Your task to perform on an android device: open app "Messages" (install if not already installed) Image 0: 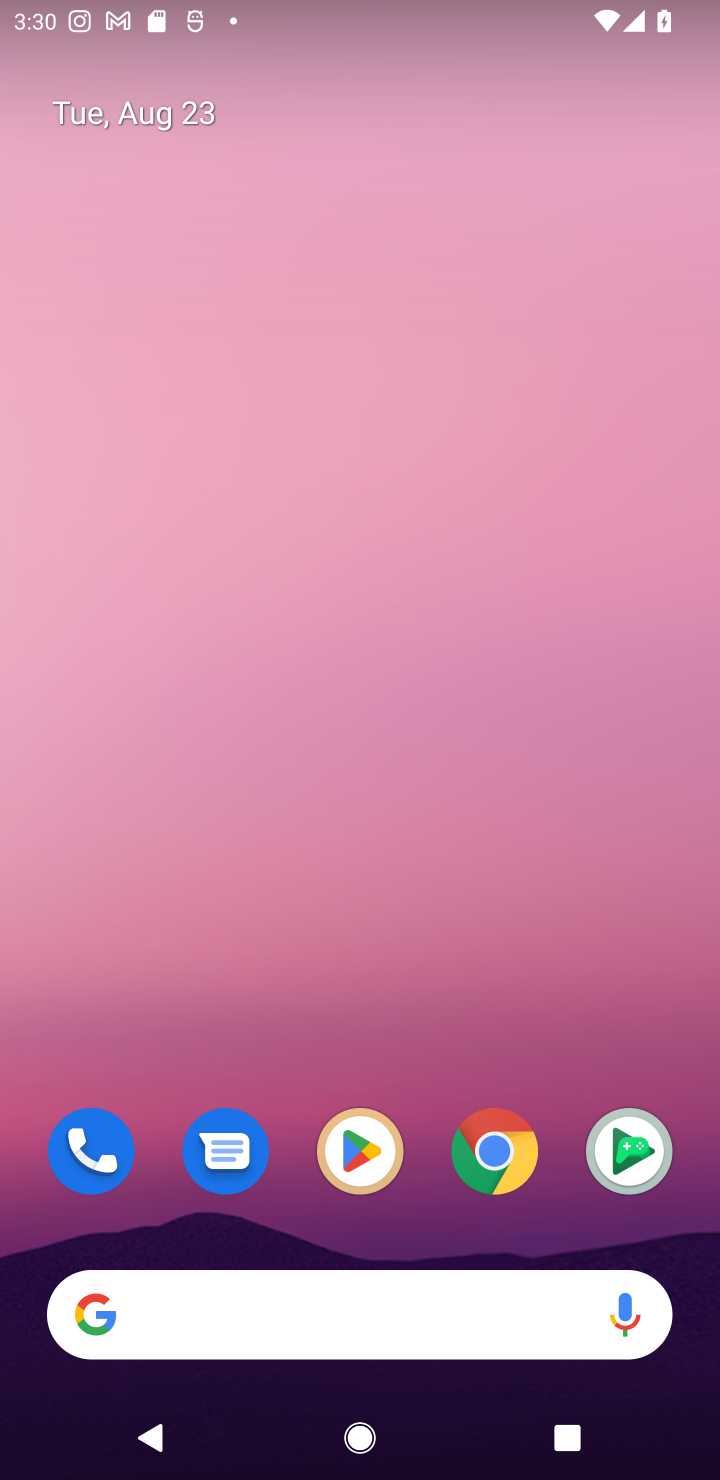
Step 0: press home button
Your task to perform on an android device: open app "Messages" (install if not already installed) Image 1: 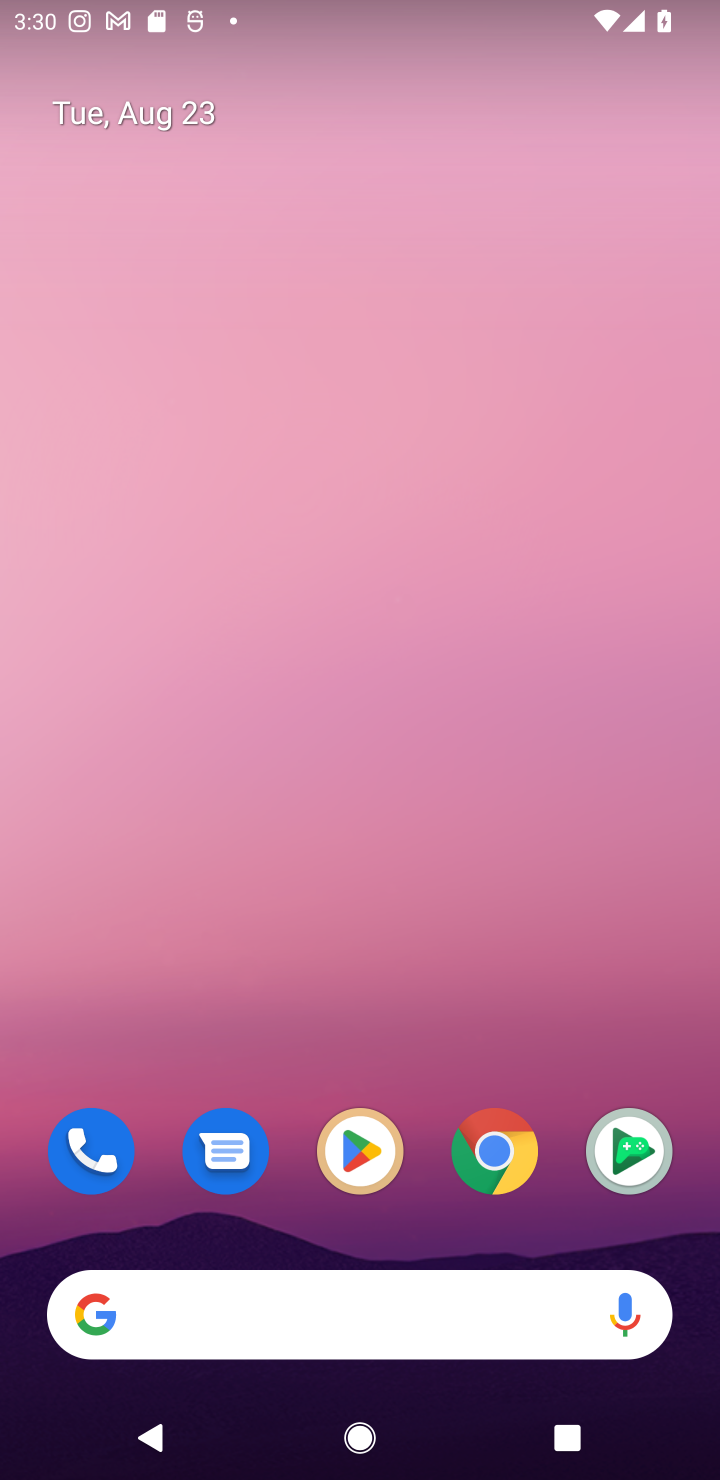
Step 1: click (367, 1144)
Your task to perform on an android device: open app "Messages" (install if not already installed) Image 2: 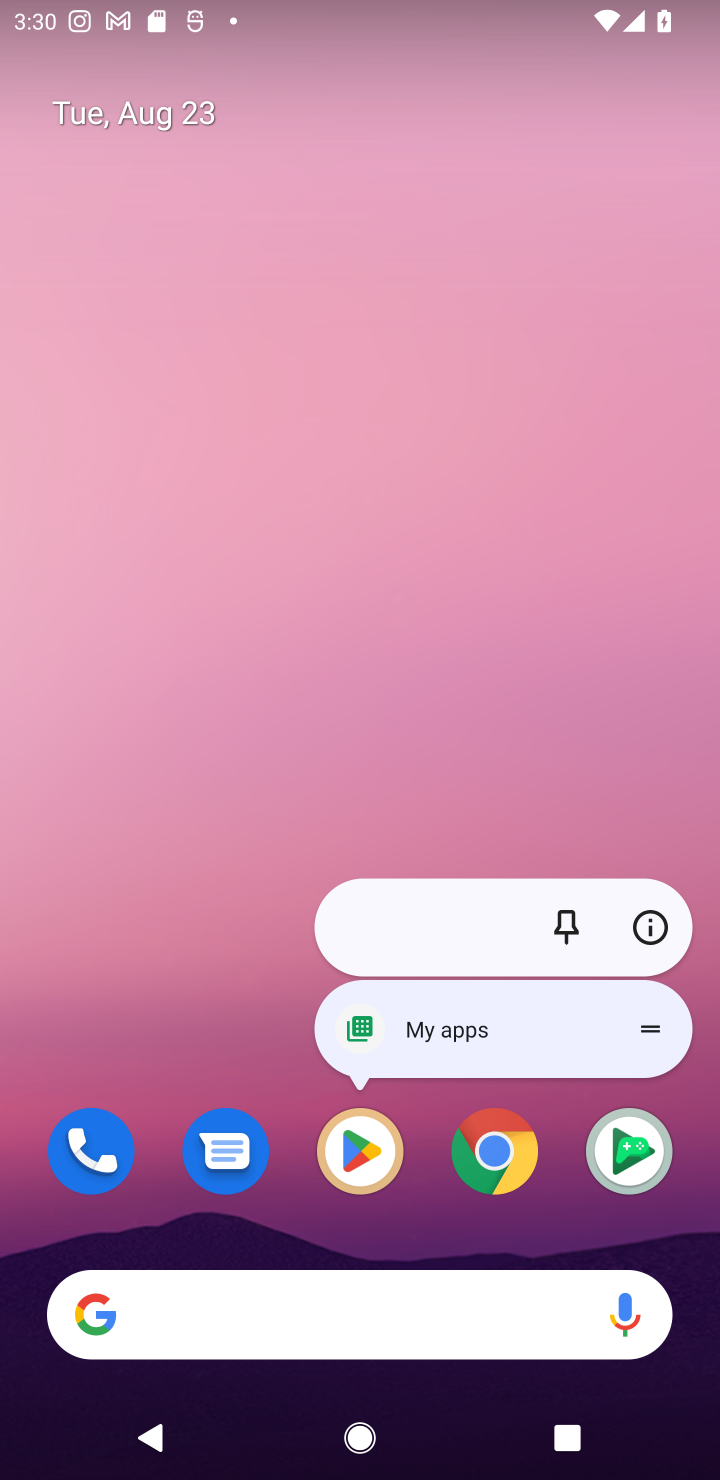
Step 2: click (367, 1153)
Your task to perform on an android device: open app "Messages" (install if not already installed) Image 3: 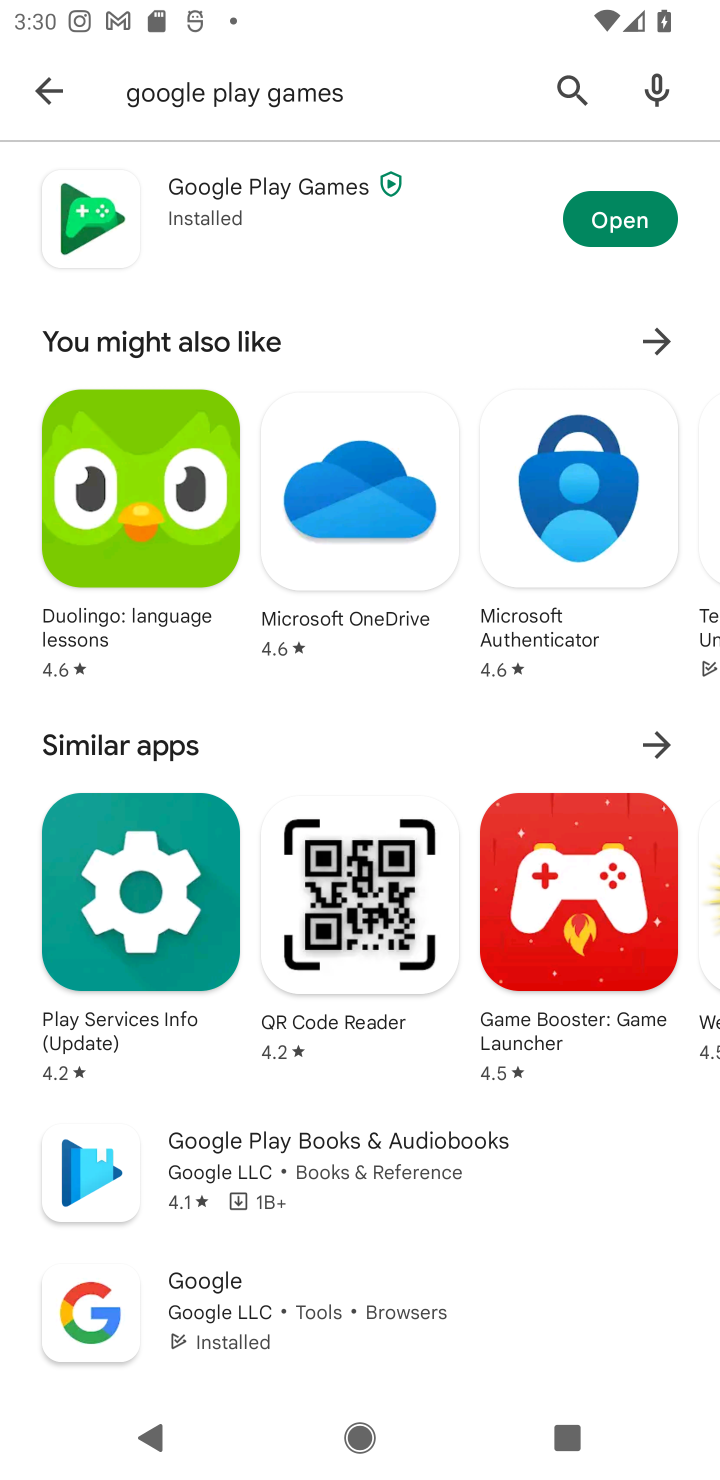
Step 3: click (558, 90)
Your task to perform on an android device: open app "Messages" (install if not already installed) Image 4: 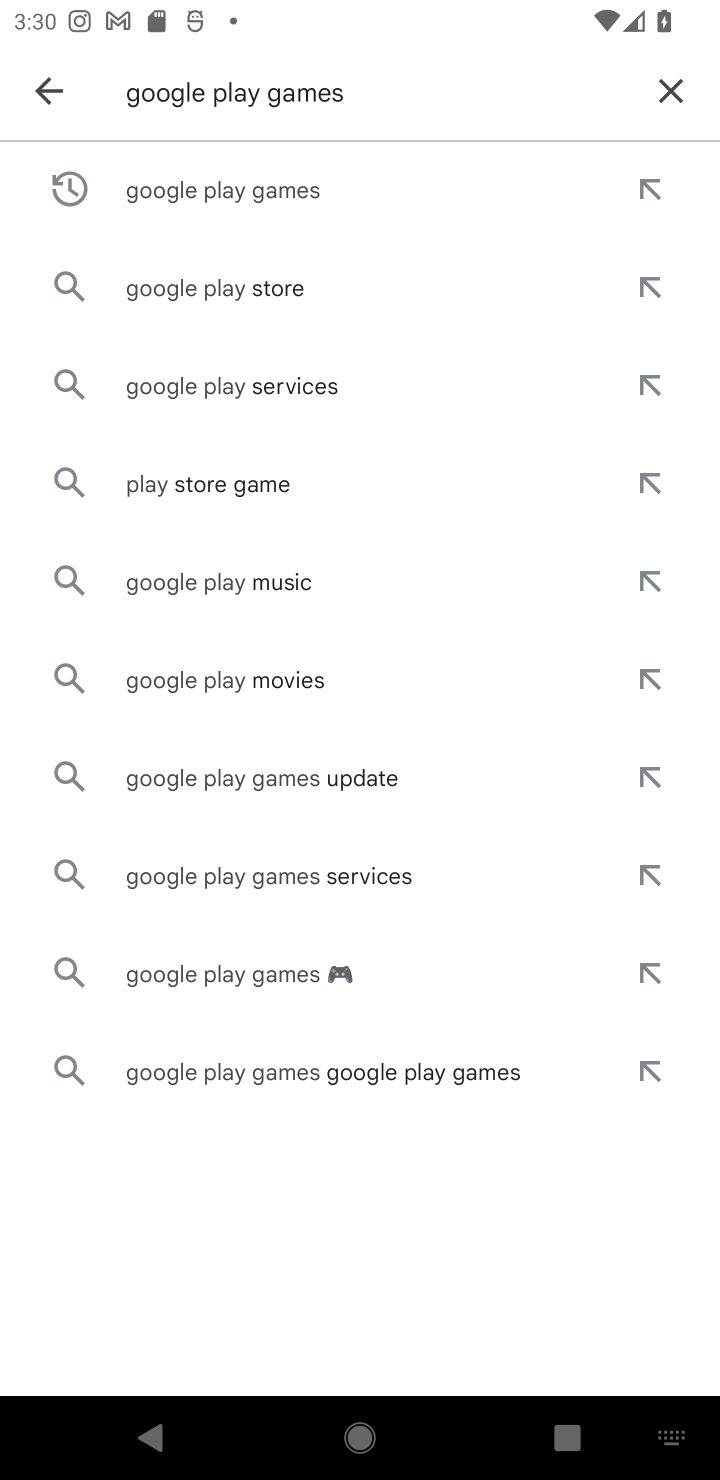
Step 4: click (661, 99)
Your task to perform on an android device: open app "Messages" (install if not already installed) Image 5: 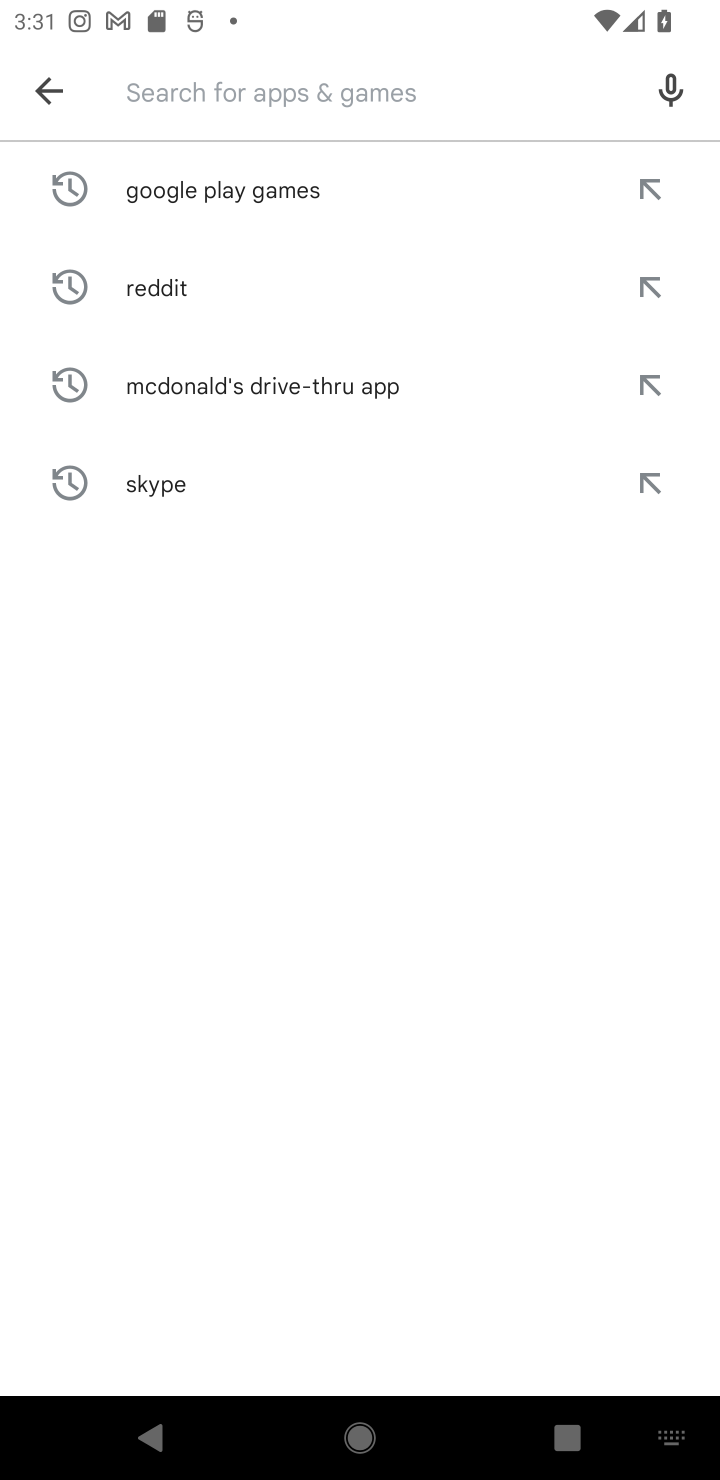
Step 5: type "Messages"
Your task to perform on an android device: open app "Messages" (install if not already installed) Image 6: 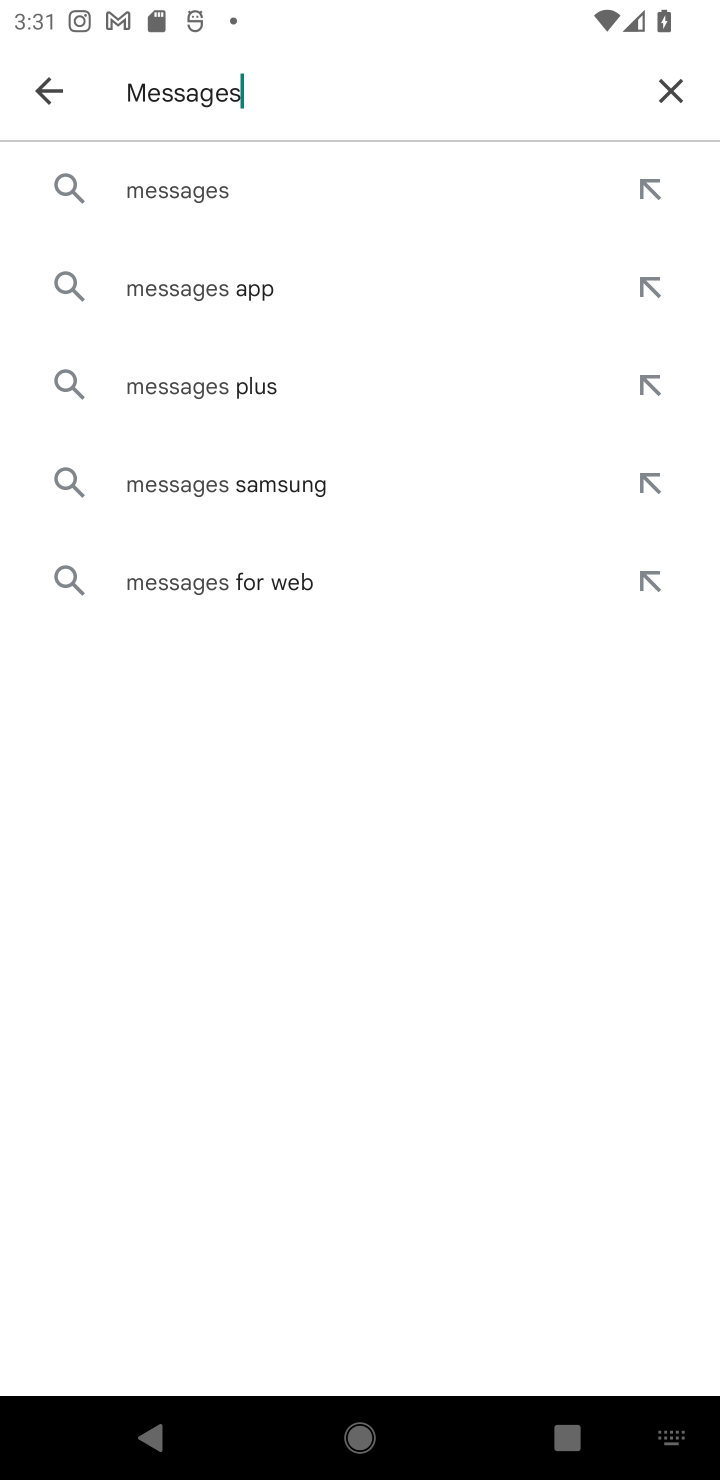
Step 6: click (196, 200)
Your task to perform on an android device: open app "Messages" (install if not already installed) Image 7: 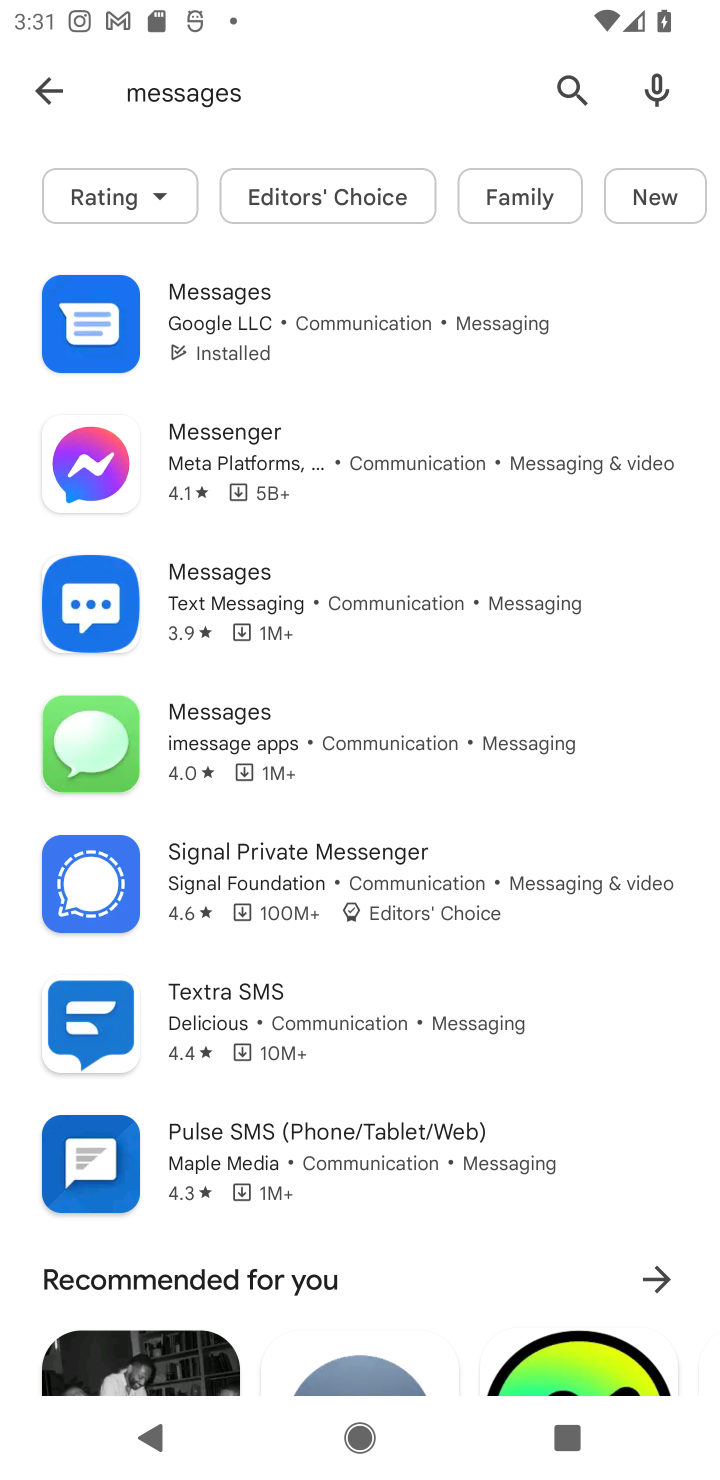
Step 7: click (248, 341)
Your task to perform on an android device: open app "Messages" (install if not already installed) Image 8: 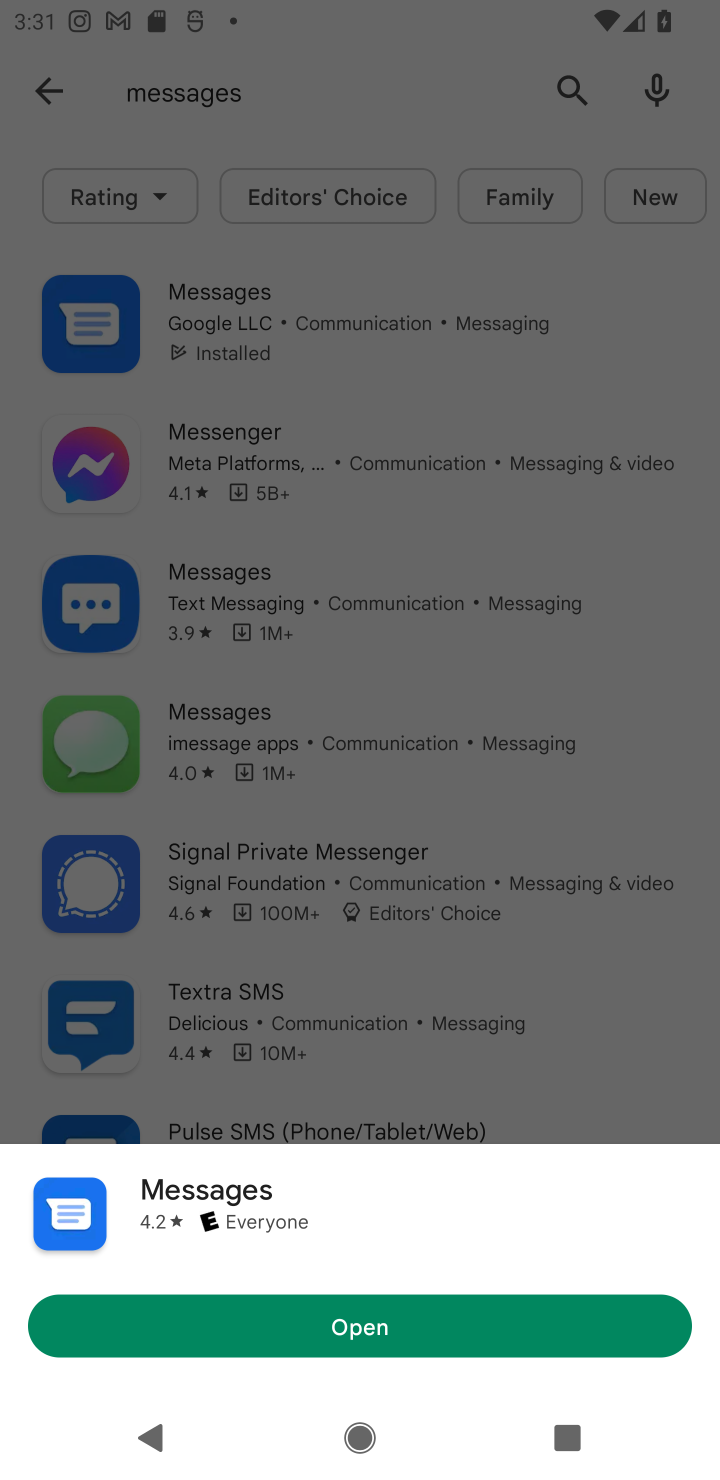
Step 8: click (335, 1326)
Your task to perform on an android device: open app "Messages" (install if not already installed) Image 9: 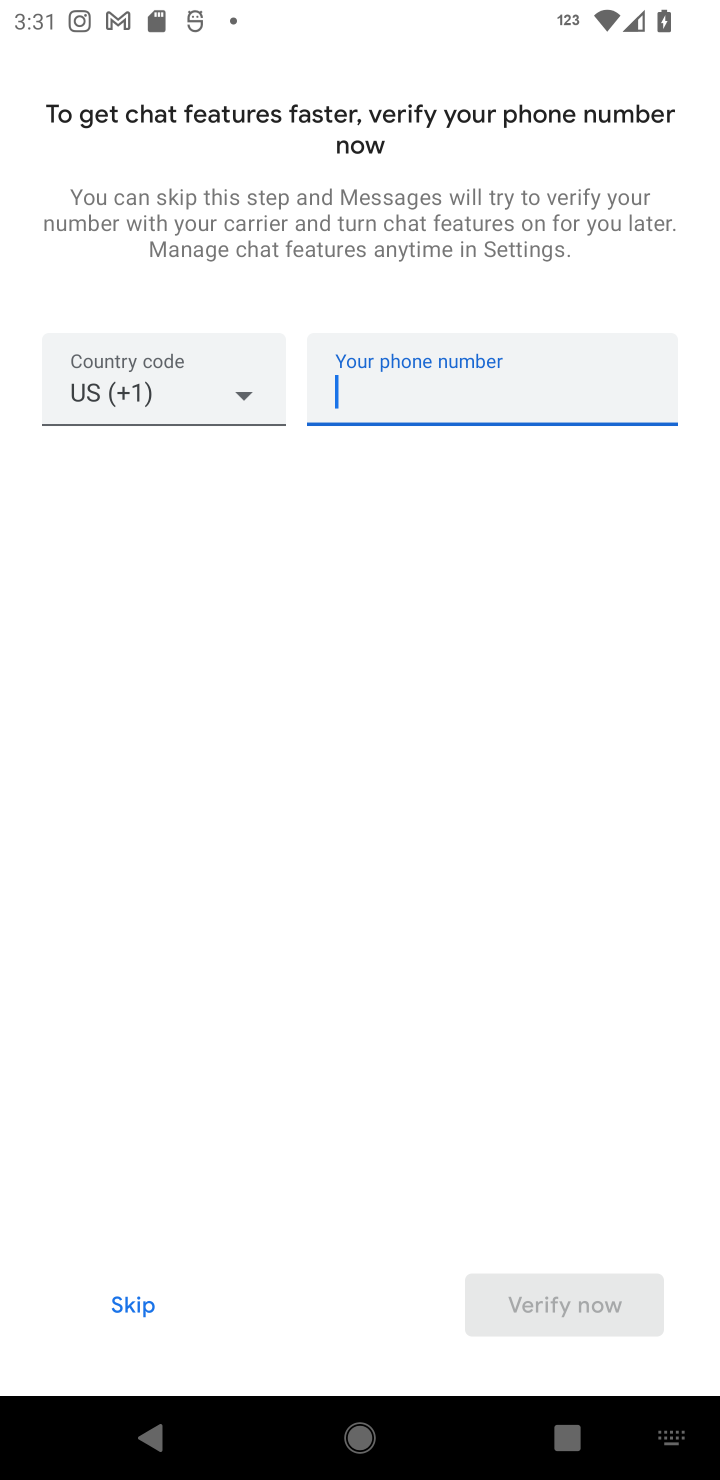
Step 9: click (143, 1300)
Your task to perform on an android device: open app "Messages" (install if not already installed) Image 10: 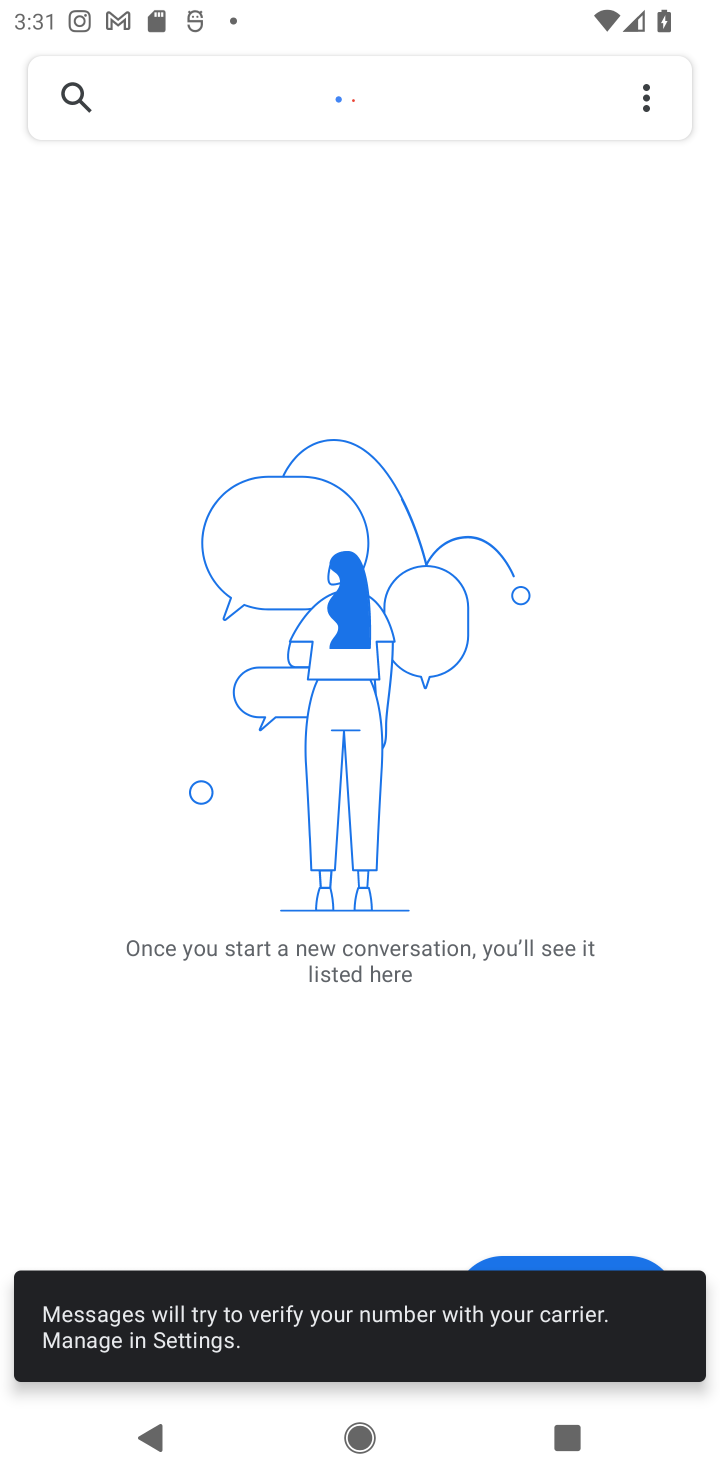
Step 10: task complete